Your task to perform on an android device: set an alarm Image 0: 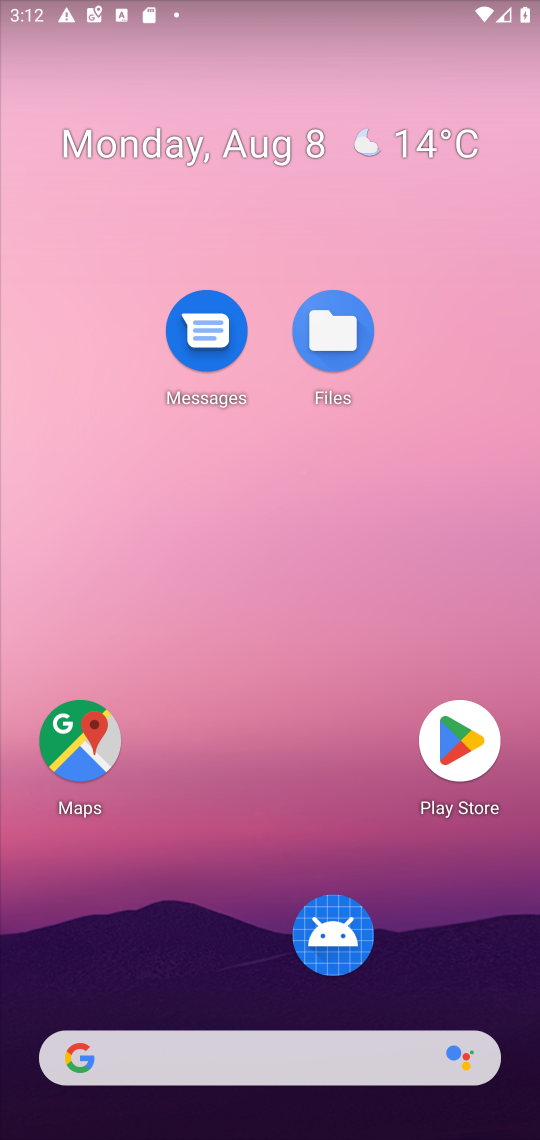
Step 0: press home button
Your task to perform on an android device: set an alarm Image 1: 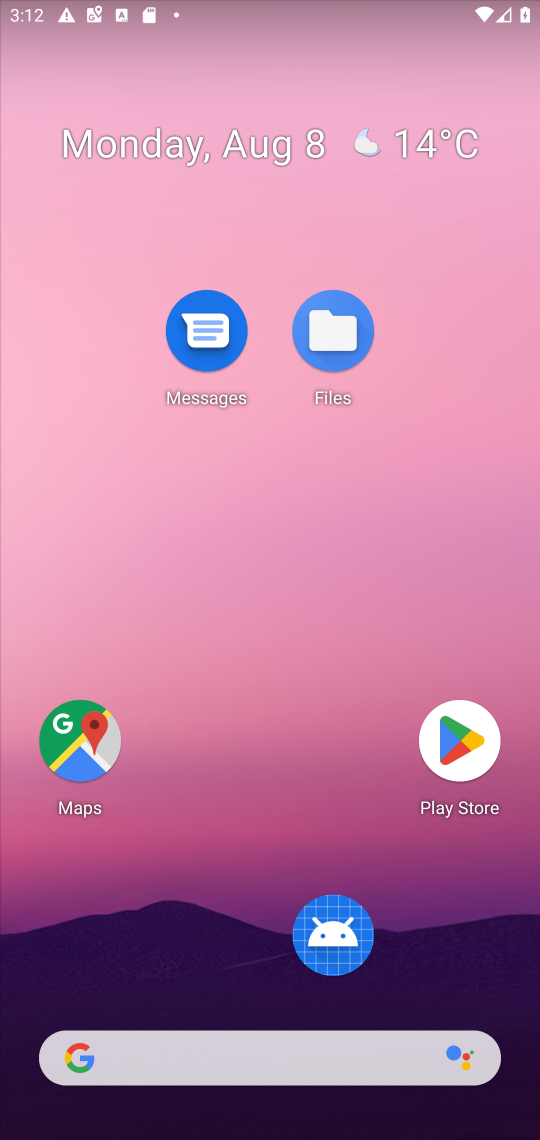
Step 1: drag from (257, 1060) to (343, 196)
Your task to perform on an android device: set an alarm Image 2: 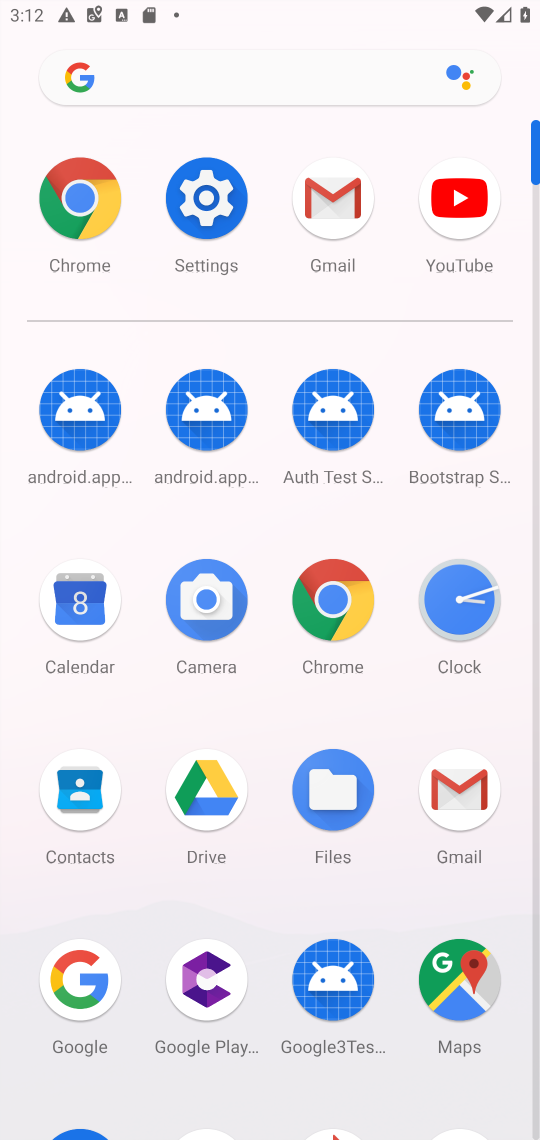
Step 2: click (464, 635)
Your task to perform on an android device: set an alarm Image 3: 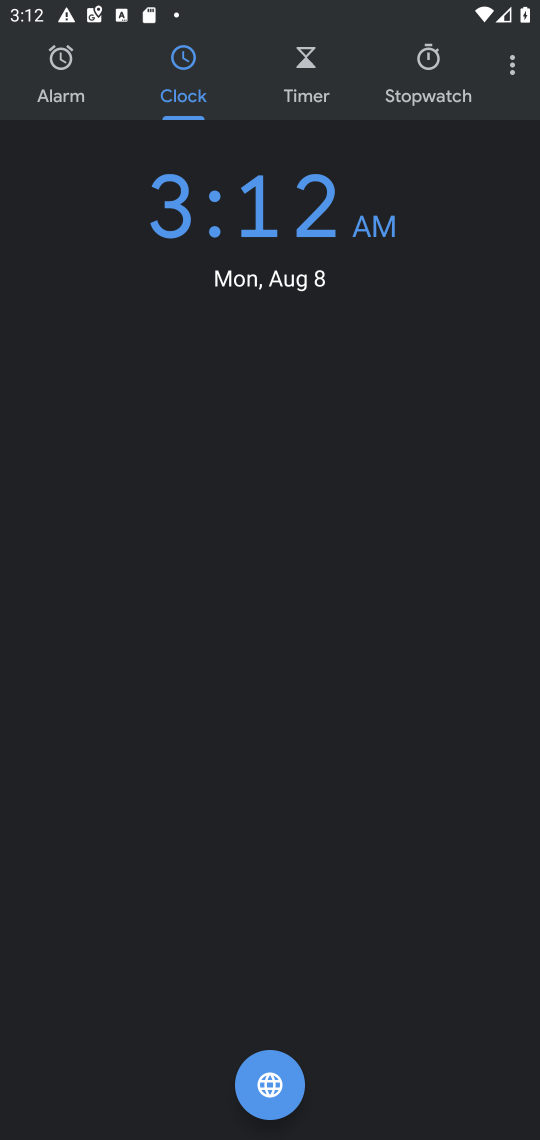
Step 3: click (61, 73)
Your task to perform on an android device: set an alarm Image 4: 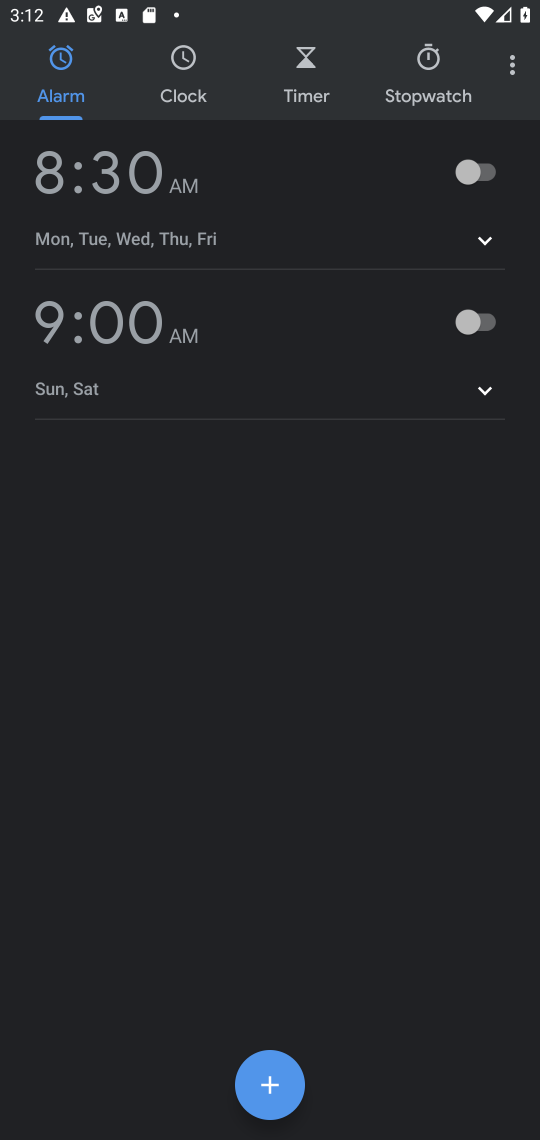
Step 4: click (483, 183)
Your task to perform on an android device: set an alarm Image 5: 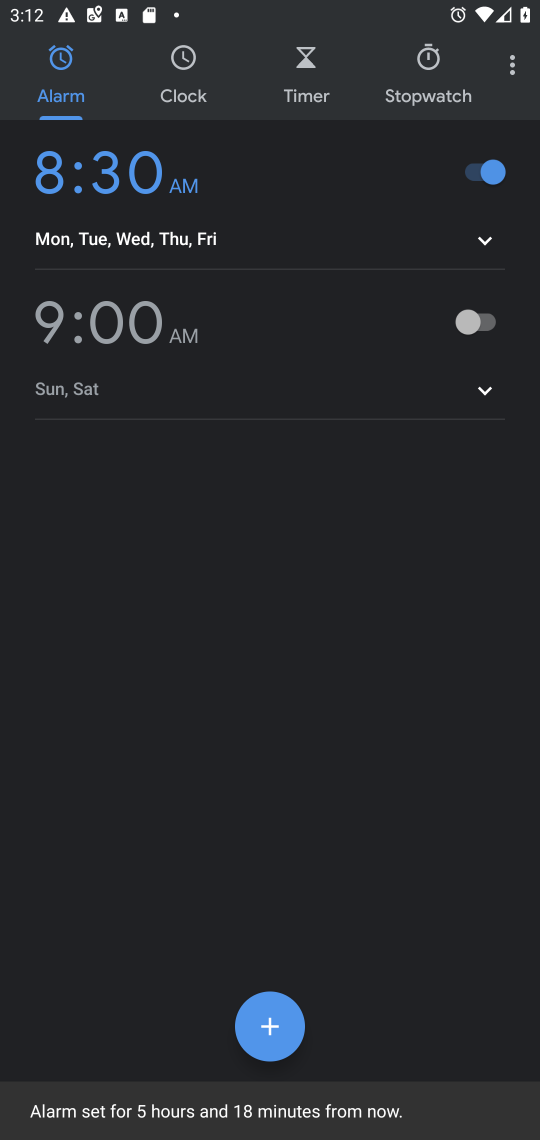
Step 5: task complete